Your task to perform on an android device: Open Google Maps Image 0: 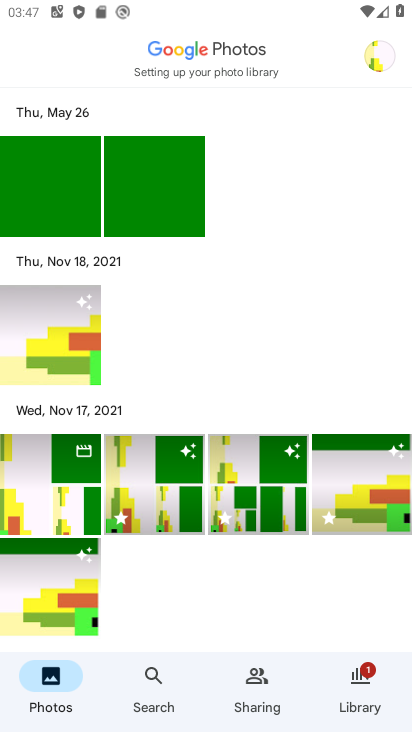
Step 0: press home button
Your task to perform on an android device: Open Google Maps Image 1: 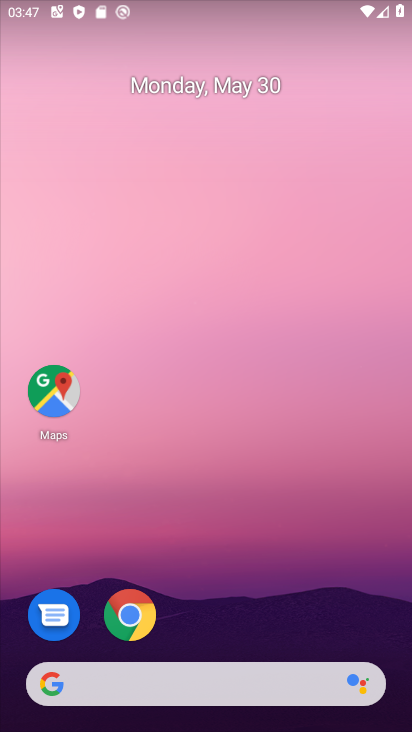
Step 1: click (54, 392)
Your task to perform on an android device: Open Google Maps Image 2: 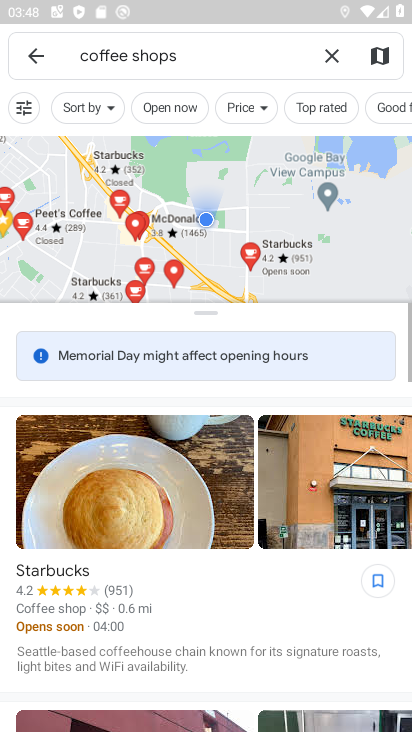
Step 2: task complete